Your task to perform on an android device: delete browsing data in the chrome app Image 0: 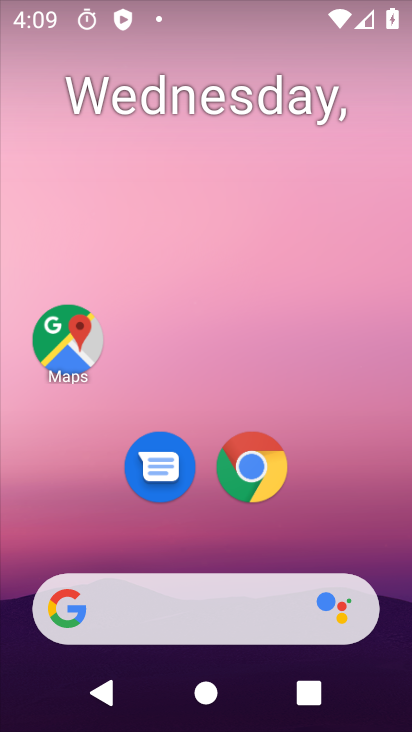
Step 0: click (252, 474)
Your task to perform on an android device: delete browsing data in the chrome app Image 1: 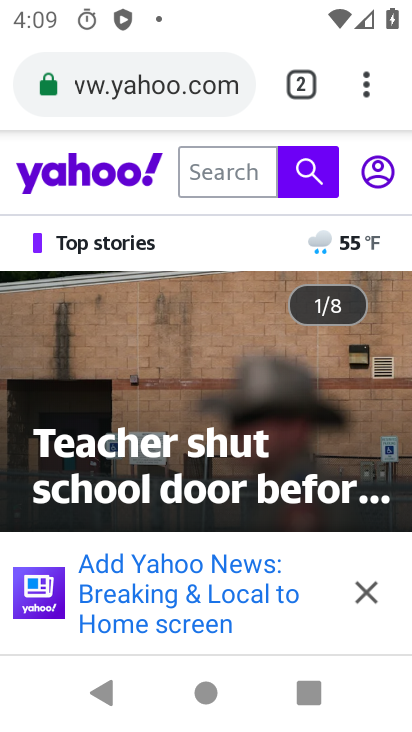
Step 1: click (364, 80)
Your task to perform on an android device: delete browsing data in the chrome app Image 2: 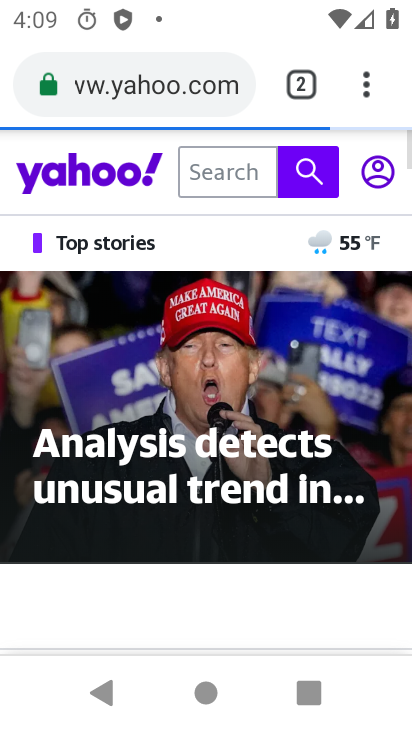
Step 2: click (369, 82)
Your task to perform on an android device: delete browsing data in the chrome app Image 3: 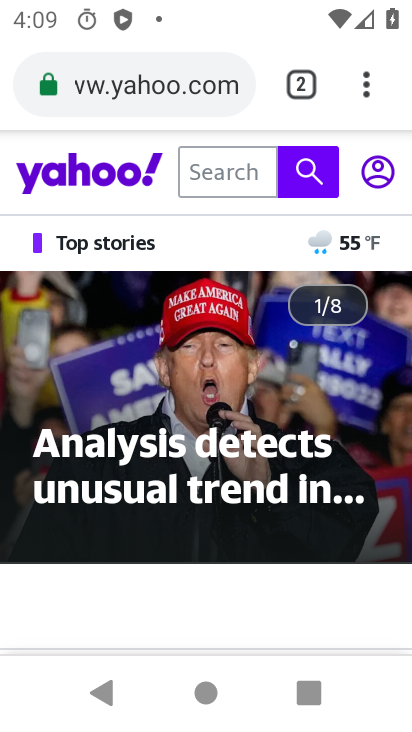
Step 3: click (364, 84)
Your task to perform on an android device: delete browsing data in the chrome app Image 4: 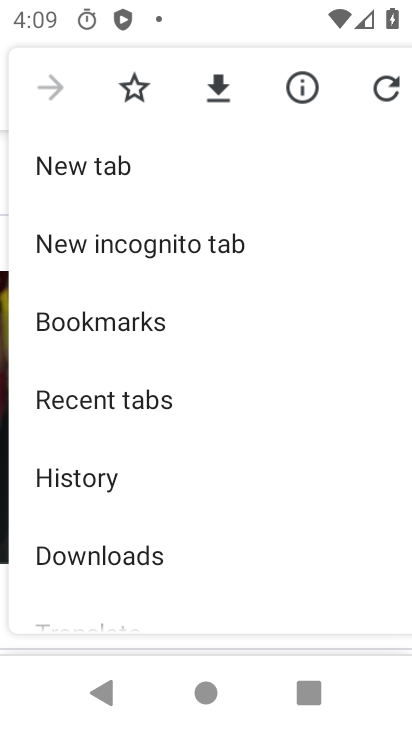
Step 4: drag from (207, 488) to (211, 0)
Your task to perform on an android device: delete browsing data in the chrome app Image 5: 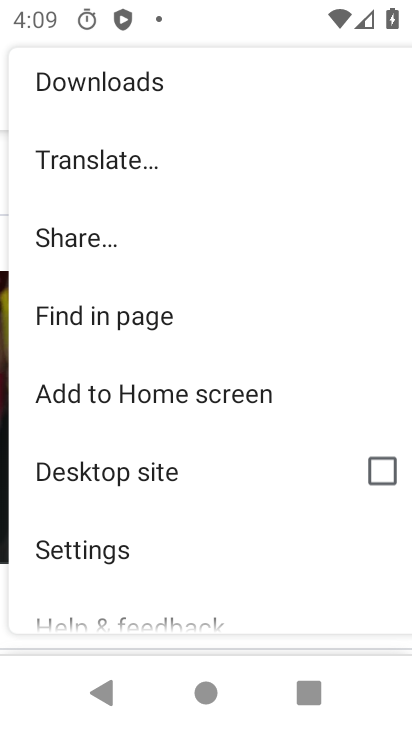
Step 5: drag from (206, 170) to (153, 599)
Your task to perform on an android device: delete browsing data in the chrome app Image 6: 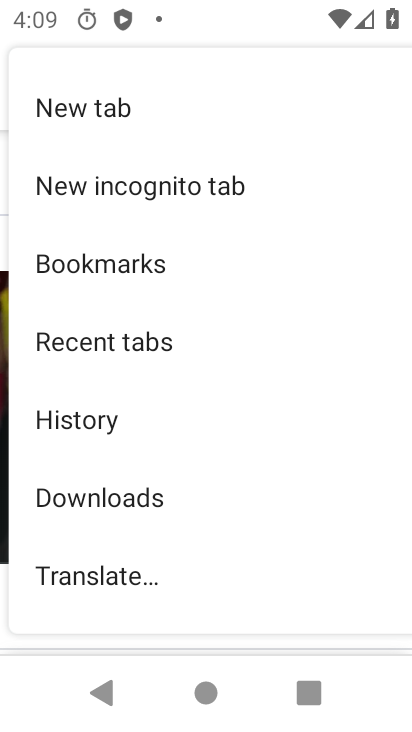
Step 6: click (110, 426)
Your task to perform on an android device: delete browsing data in the chrome app Image 7: 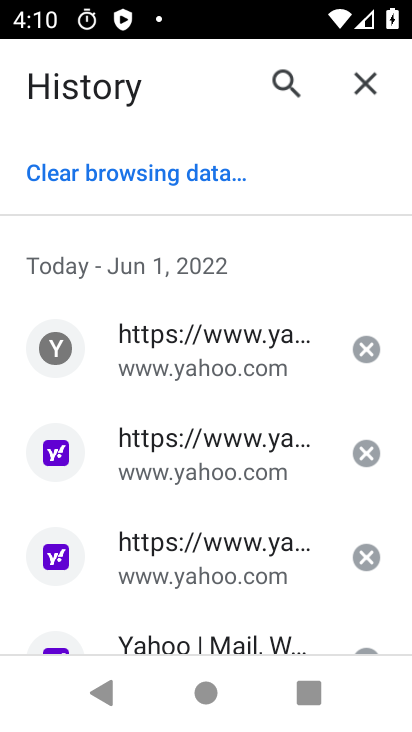
Step 7: click (120, 172)
Your task to perform on an android device: delete browsing data in the chrome app Image 8: 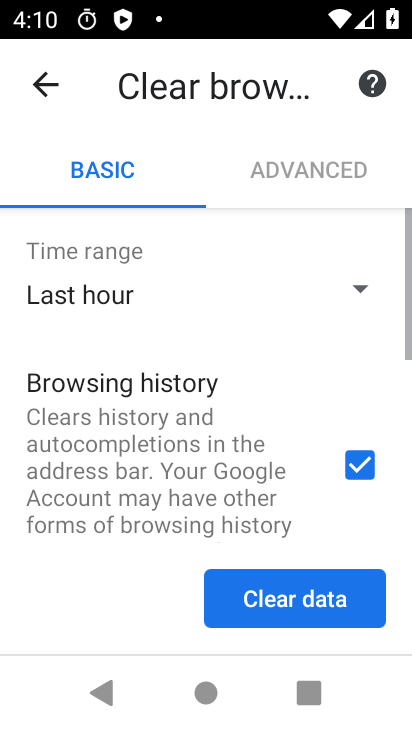
Step 8: click (335, 602)
Your task to perform on an android device: delete browsing data in the chrome app Image 9: 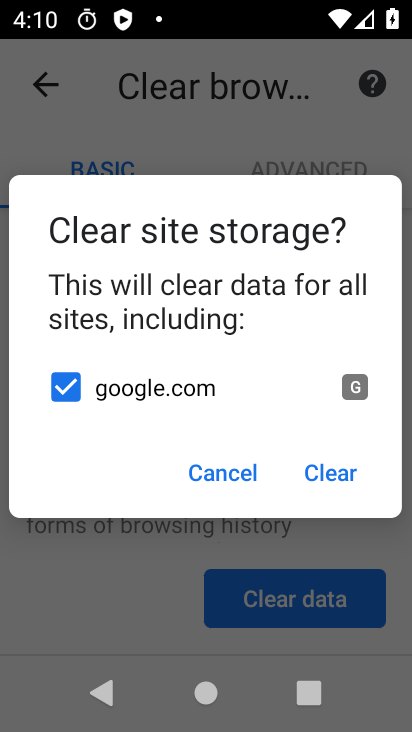
Step 9: click (336, 476)
Your task to perform on an android device: delete browsing data in the chrome app Image 10: 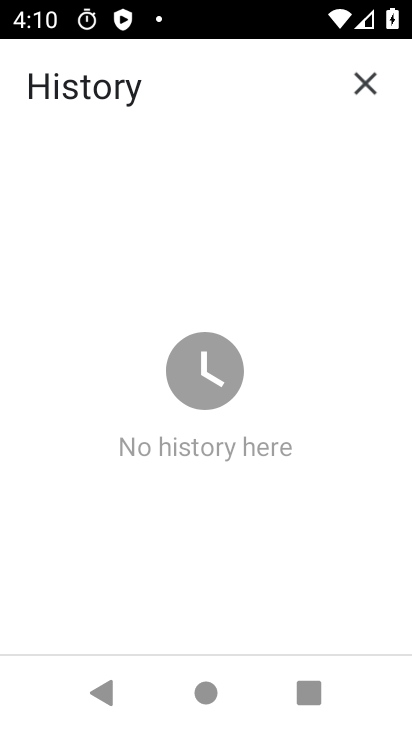
Step 10: task complete